Your task to perform on an android device: change your default location settings in chrome Image 0: 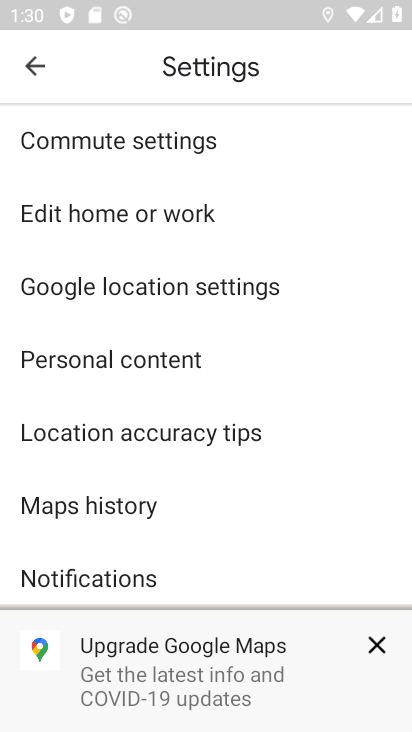
Step 0: press back button
Your task to perform on an android device: change your default location settings in chrome Image 1: 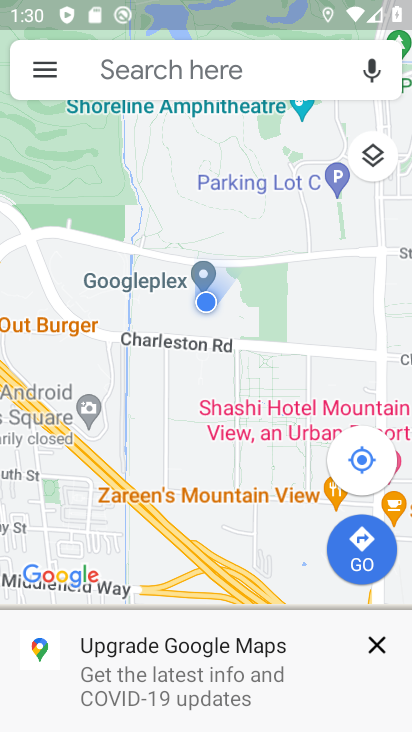
Step 1: press home button
Your task to perform on an android device: change your default location settings in chrome Image 2: 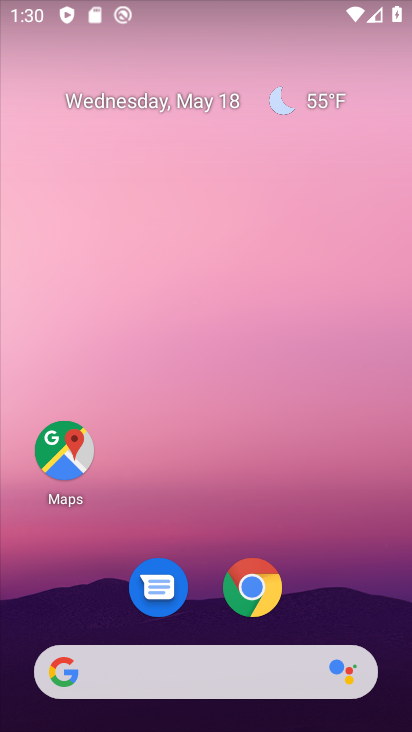
Step 2: click (259, 588)
Your task to perform on an android device: change your default location settings in chrome Image 3: 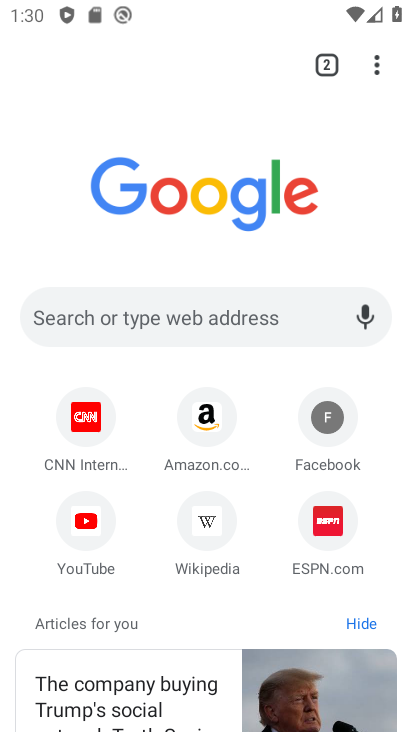
Step 3: click (380, 56)
Your task to perform on an android device: change your default location settings in chrome Image 4: 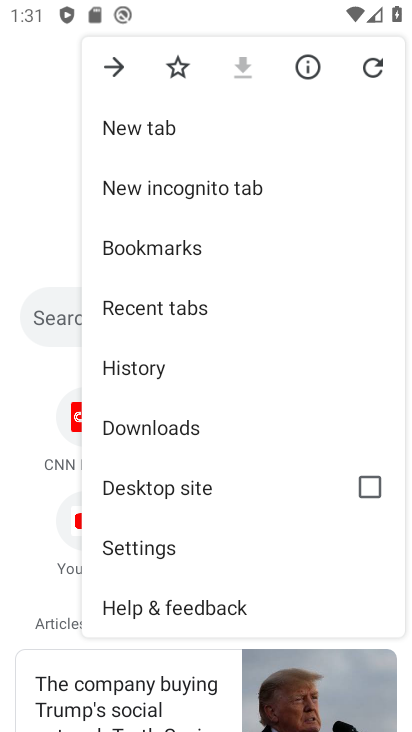
Step 4: click (161, 544)
Your task to perform on an android device: change your default location settings in chrome Image 5: 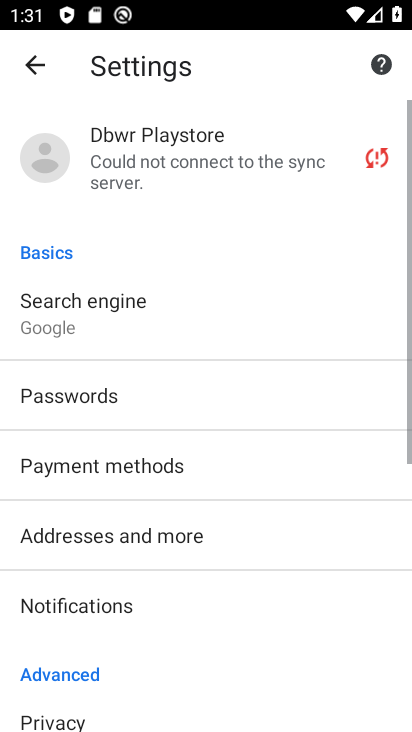
Step 5: drag from (150, 609) to (299, 37)
Your task to perform on an android device: change your default location settings in chrome Image 6: 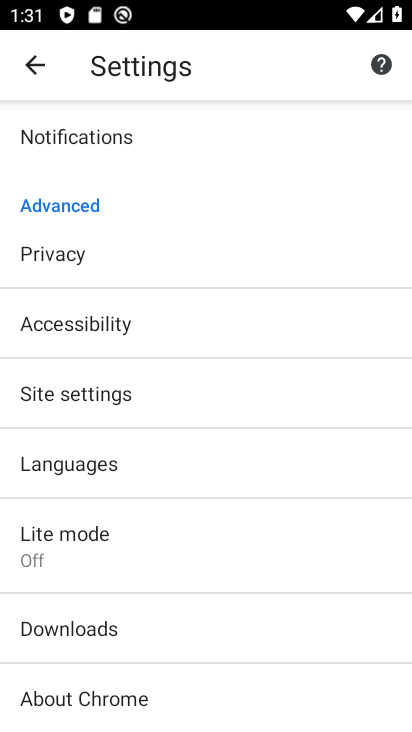
Step 6: click (93, 401)
Your task to perform on an android device: change your default location settings in chrome Image 7: 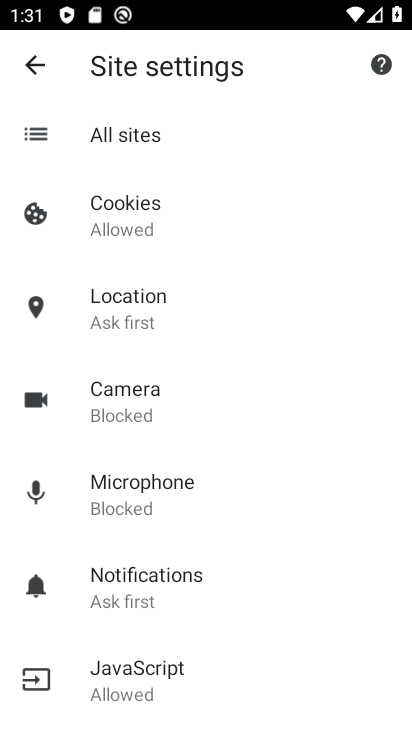
Step 7: click (122, 295)
Your task to perform on an android device: change your default location settings in chrome Image 8: 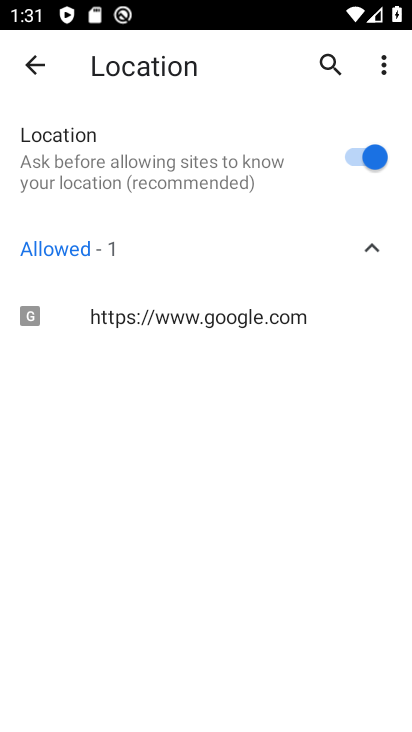
Step 8: click (366, 156)
Your task to perform on an android device: change your default location settings in chrome Image 9: 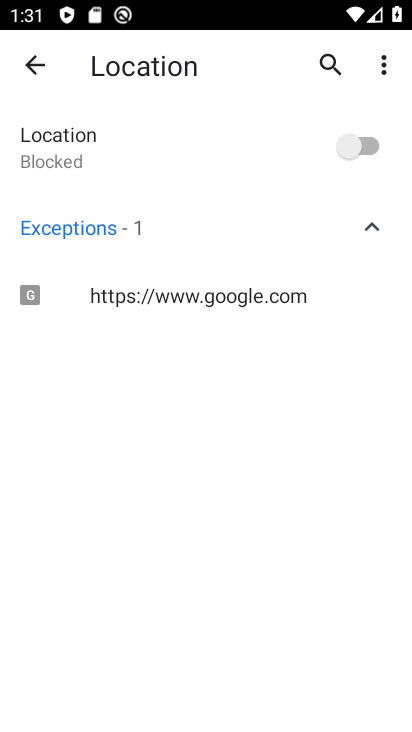
Step 9: task complete